Your task to perform on an android device: toggle priority inbox in the gmail app Image 0: 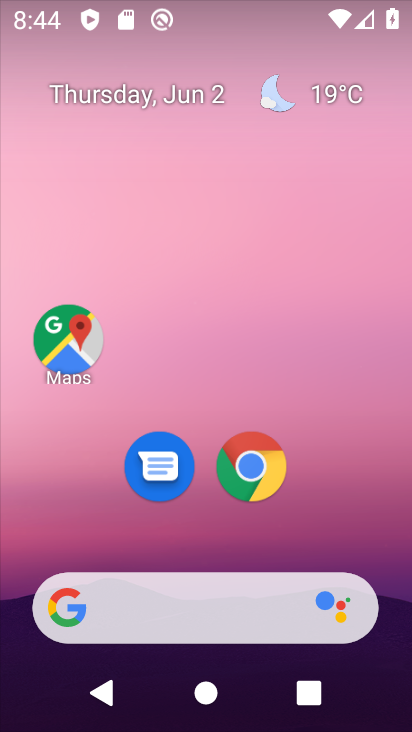
Step 0: drag from (184, 538) to (138, 72)
Your task to perform on an android device: toggle priority inbox in the gmail app Image 1: 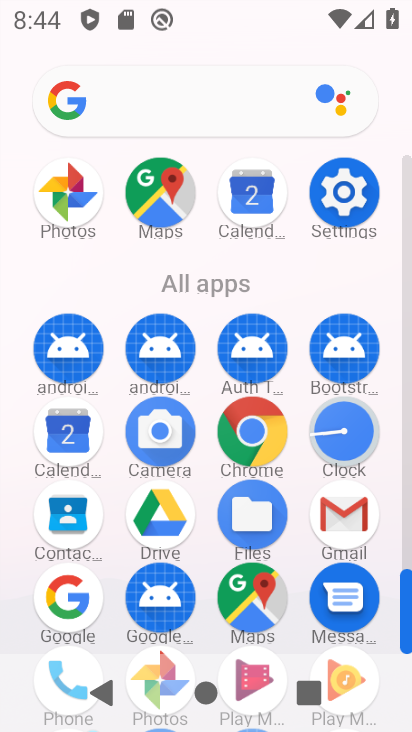
Step 1: click (350, 506)
Your task to perform on an android device: toggle priority inbox in the gmail app Image 2: 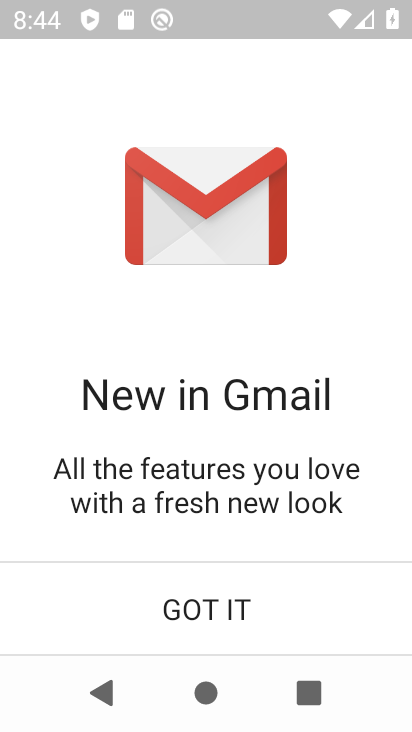
Step 2: click (225, 598)
Your task to perform on an android device: toggle priority inbox in the gmail app Image 3: 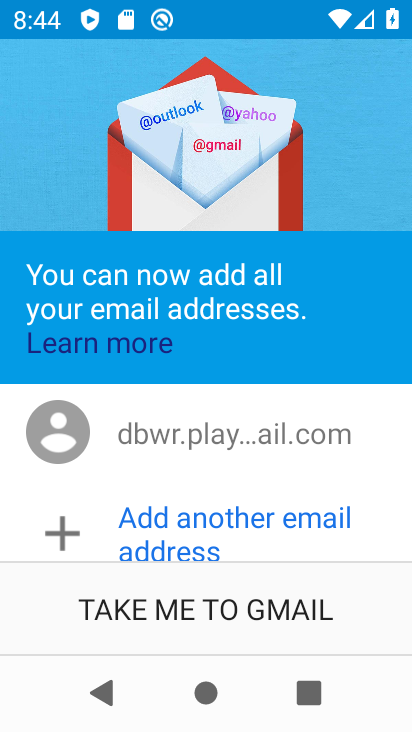
Step 3: click (228, 637)
Your task to perform on an android device: toggle priority inbox in the gmail app Image 4: 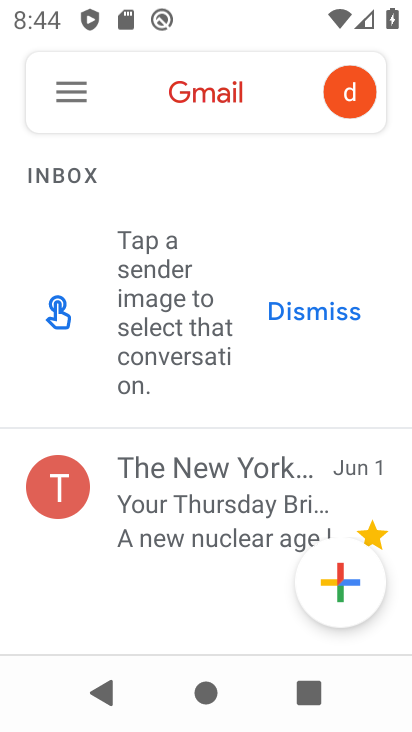
Step 4: click (59, 92)
Your task to perform on an android device: toggle priority inbox in the gmail app Image 5: 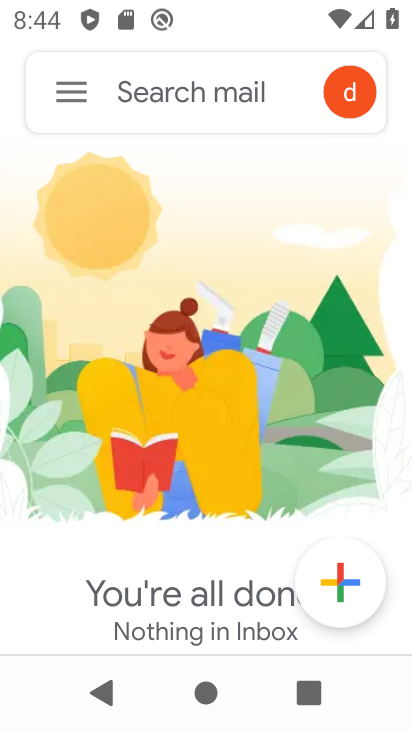
Step 5: click (66, 91)
Your task to perform on an android device: toggle priority inbox in the gmail app Image 6: 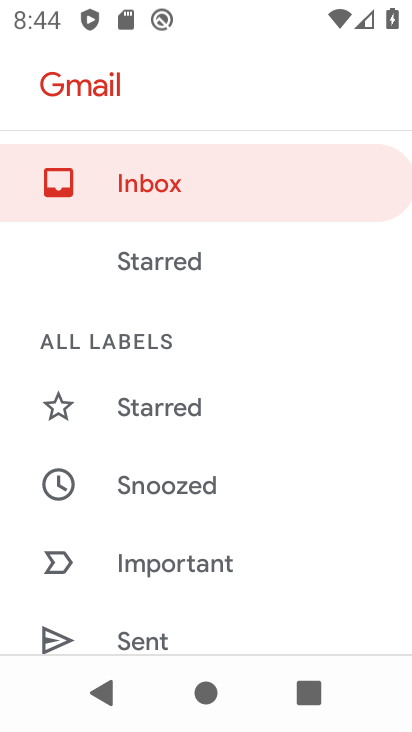
Step 6: drag from (193, 508) to (159, 152)
Your task to perform on an android device: toggle priority inbox in the gmail app Image 7: 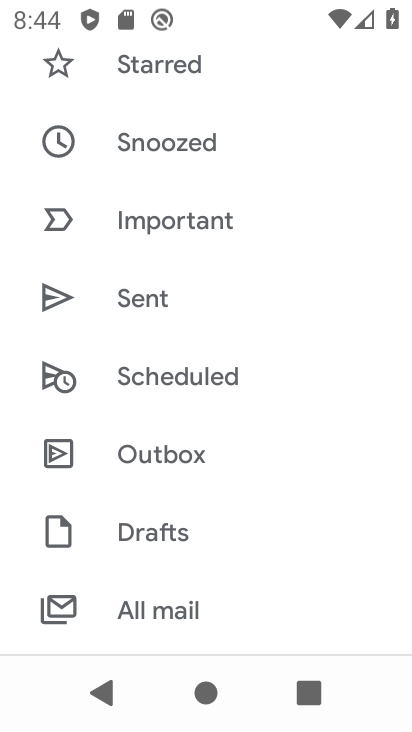
Step 7: drag from (205, 584) to (215, 226)
Your task to perform on an android device: toggle priority inbox in the gmail app Image 8: 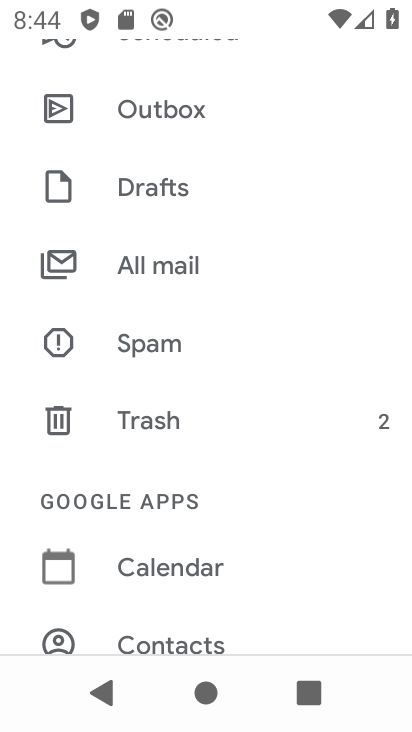
Step 8: drag from (184, 569) to (191, 321)
Your task to perform on an android device: toggle priority inbox in the gmail app Image 9: 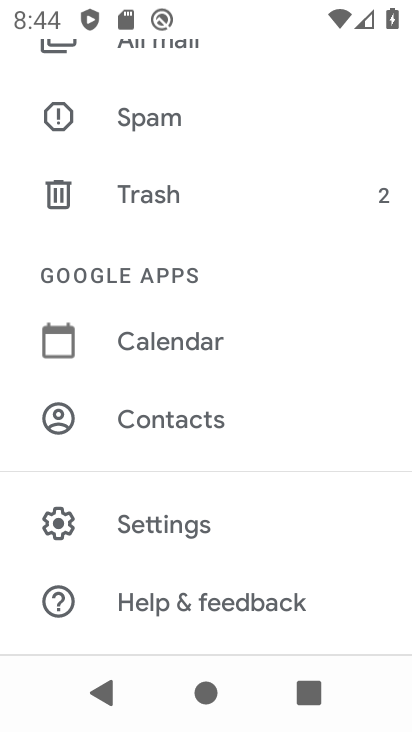
Step 9: click (149, 519)
Your task to perform on an android device: toggle priority inbox in the gmail app Image 10: 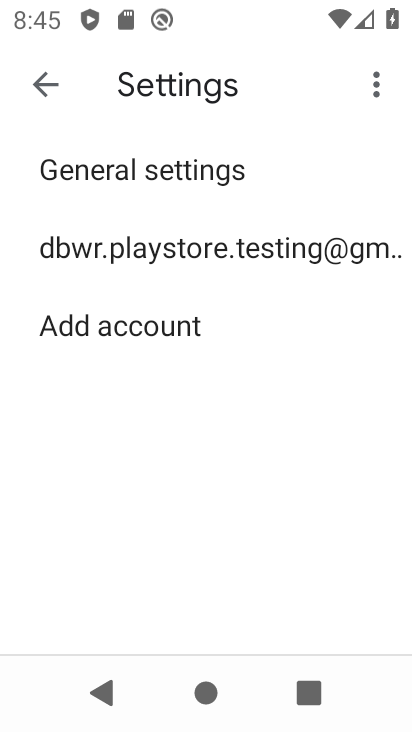
Step 10: click (156, 250)
Your task to perform on an android device: toggle priority inbox in the gmail app Image 11: 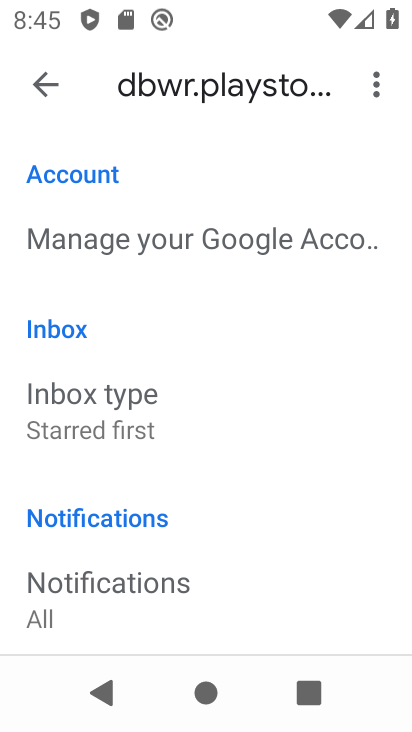
Step 11: drag from (176, 572) to (187, 232)
Your task to perform on an android device: toggle priority inbox in the gmail app Image 12: 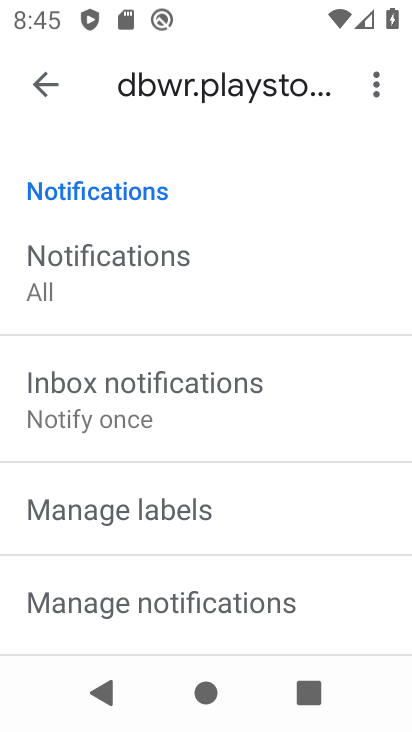
Step 12: drag from (169, 236) to (155, 514)
Your task to perform on an android device: toggle priority inbox in the gmail app Image 13: 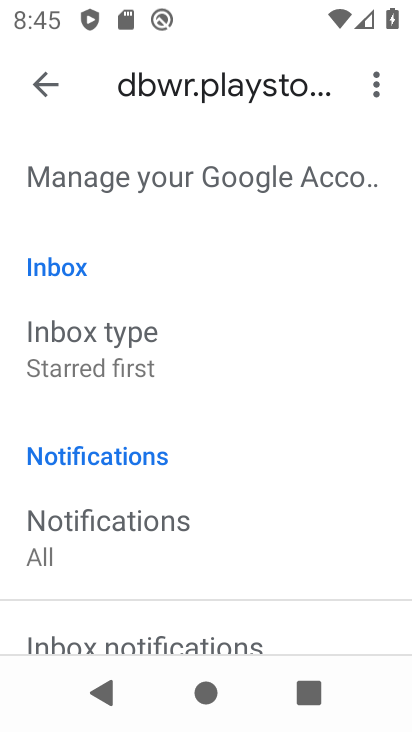
Step 13: click (98, 362)
Your task to perform on an android device: toggle priority inbox in the gmail app Image 14: 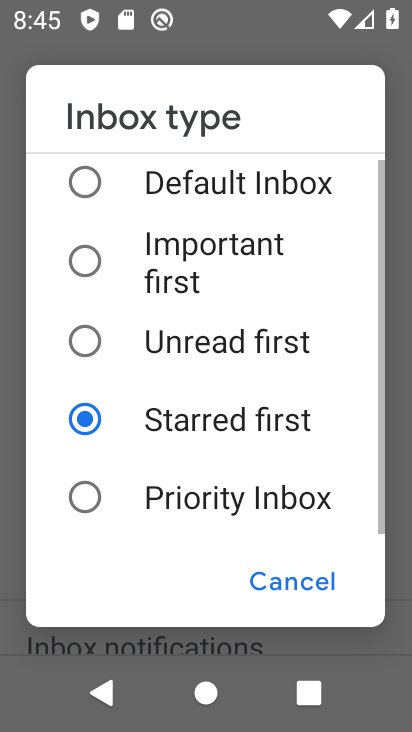
Step 14: click (77, 498)
Your task to perform on an android device: toggle priority inbox in the gmail app Image 15: 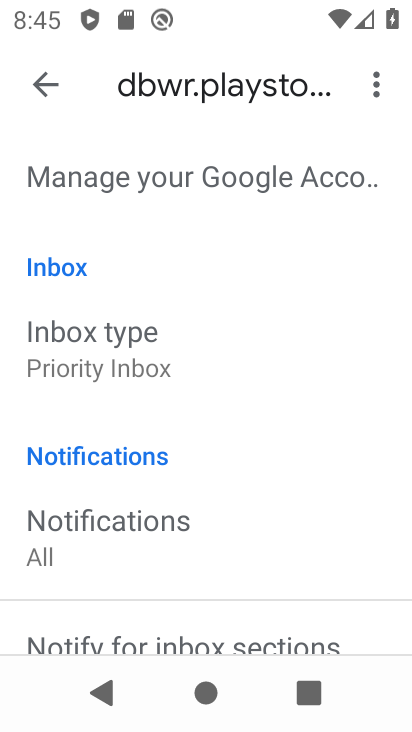
Step 15: task complete